Your task to perform on an android device: turn pop-ups off in chrome Image 0: 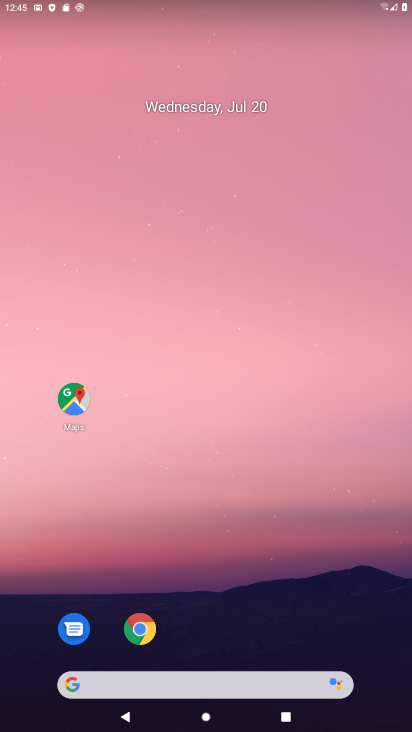
Step 0: click (141, 629)
Your task to perform on an android device: turn pop-ups off in chrome Image 1: 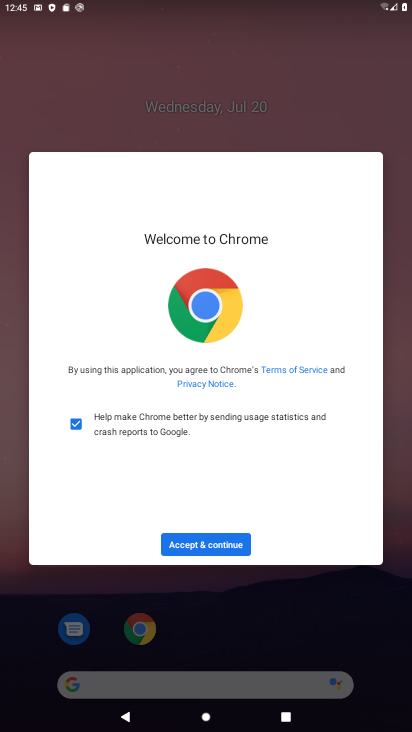
Step 1: click (215, 541)
Your task to perform on an android device: turn pop-ups off in chrome Image 2: 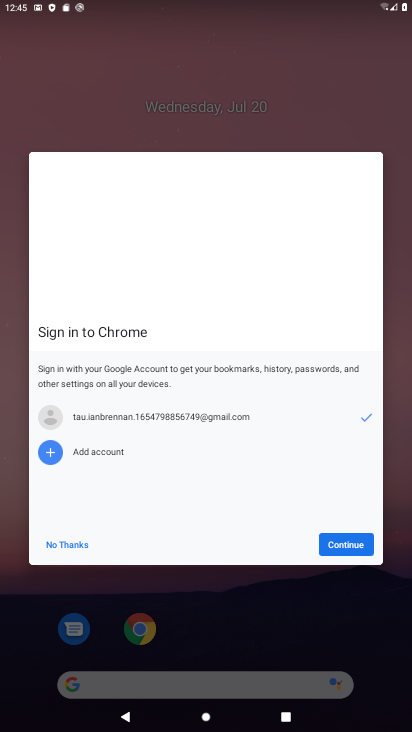
Step 2: click (339, 545)
Your task to perform on an android device: turn pop-ups off in chrome Image 3: 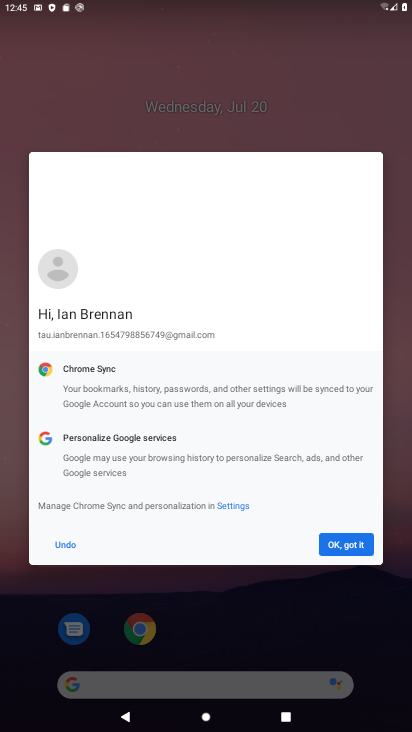
Step 3: click (339, 545)
Your task to perform on an android device: turn pop-ups off in chrome Image 4: 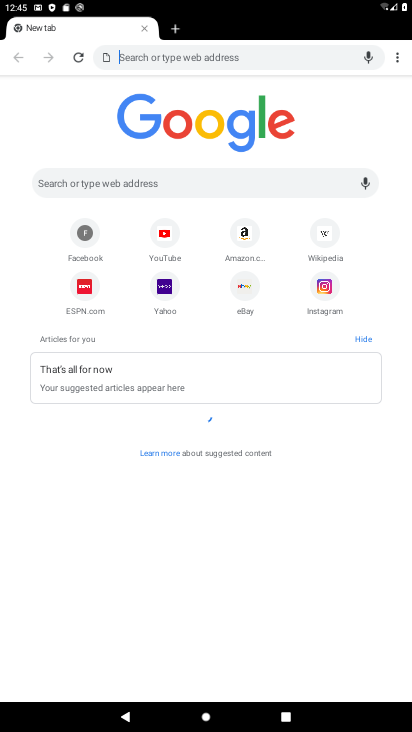
Step 4: click (398, 57)
Your task to perform on an android device: turn pop-ups off in chrome Image 5: 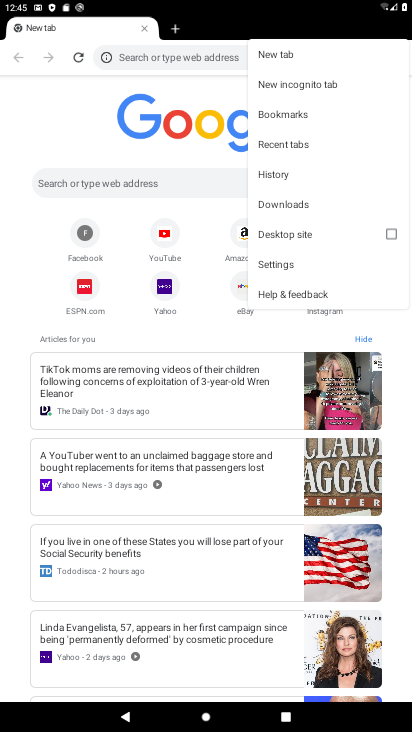
Step 5: click (274, 264)
Your task to perform on an android device: turn pop-ups off in chrome Image 6: 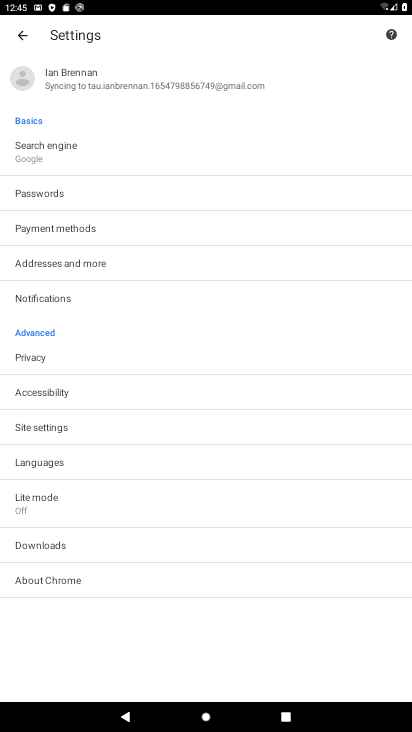
Step 6: click (49, 425)
Your task to perform on an android device: turn pop-ups off in chrome Image 7: 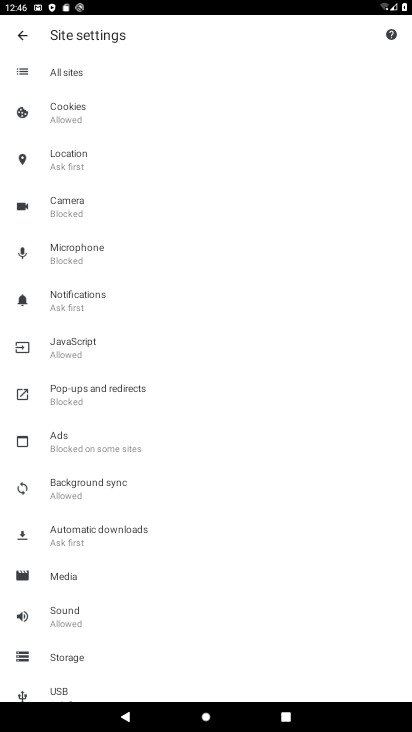
Step 7: click (84, 390)
Your task to perform on an android device: turn pop-ups off in chrome Image 8: 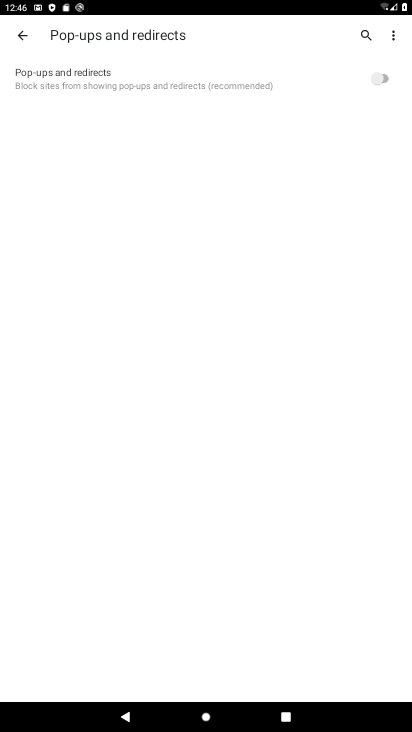
Step 8: task complete